Your task to perform on an android device: Is it going to rain today? Image 0: 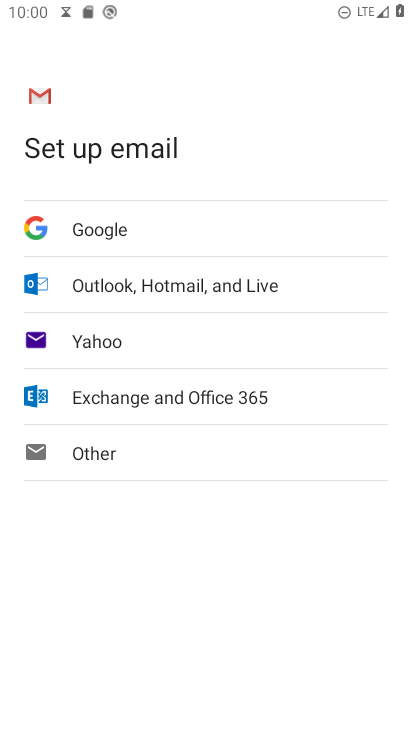
Step 0: press home button
Your task to perform on an android device: Is it going to rain today? Image 1: 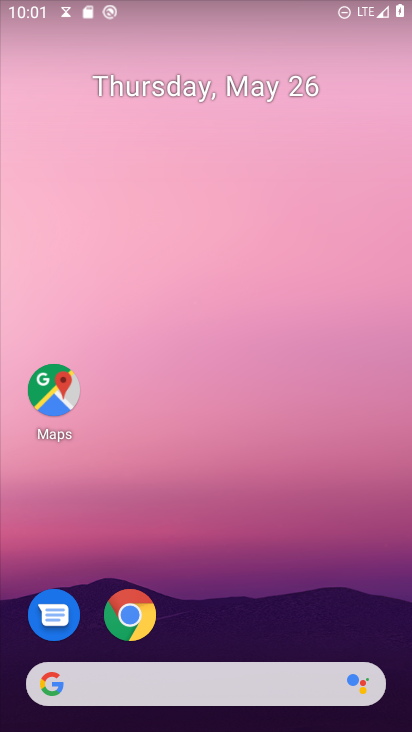
Step 1: click (133, 608)
Your task to perform on an android device: Is it going to rain today? Image 2: 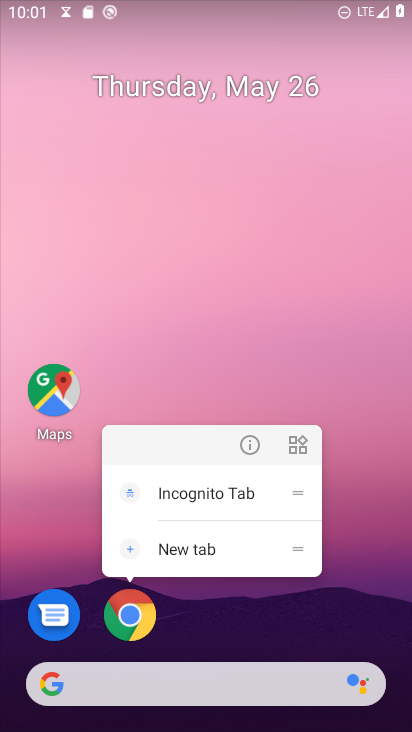
Step 2: click (134, 616)
Your task to perform on an android device: Is it going to rain today? Image 3: 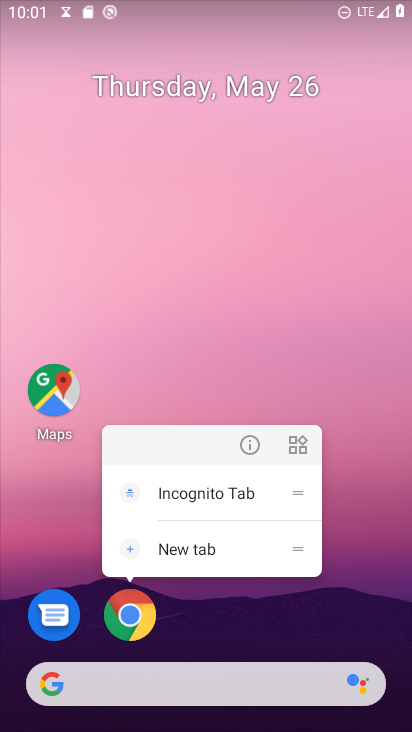
Step 3: click (133, 616)
Your task to perform on an android device: Is it going to rain today? Image 4: 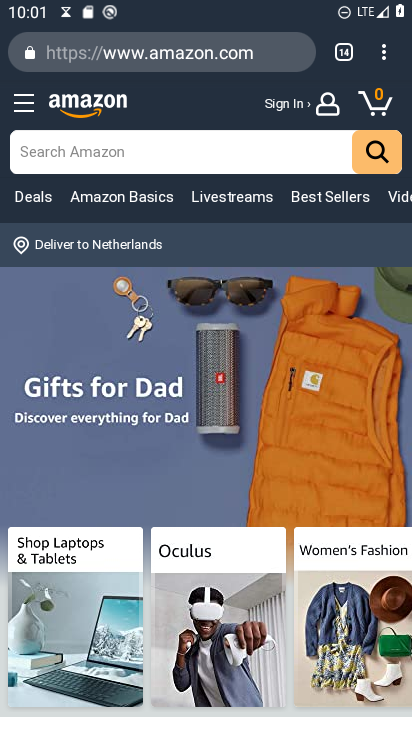
Step 4: click (378, 44)
Your task to perform on an android device: Is it going to rain today? Image 5: 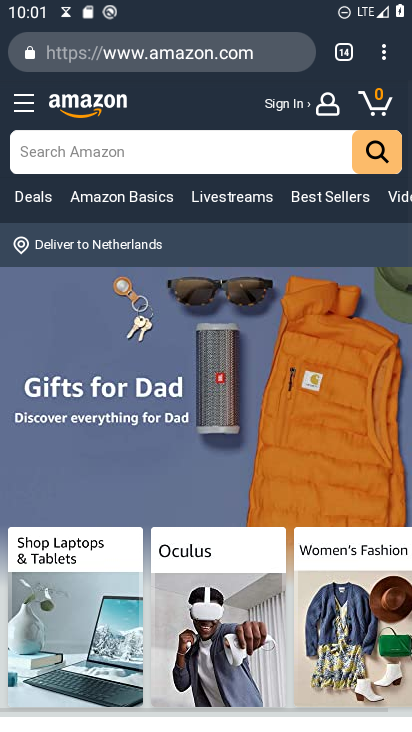
Step 5: click (381, 49)
Your task to perform on an android device: Is it going to rain today? Image 6: 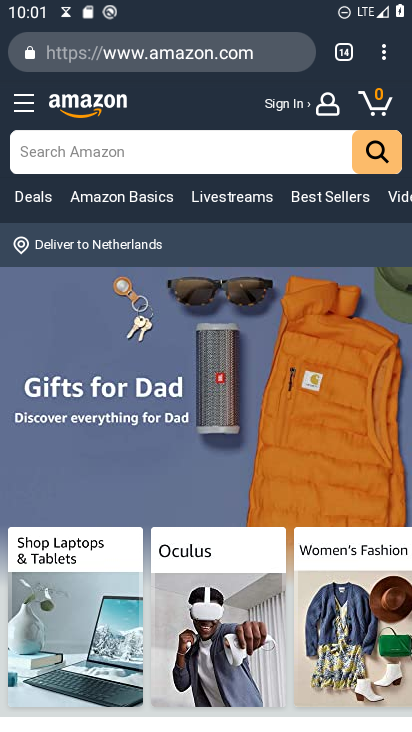
Step 6: click (382, 58)
Your task to perform on an android device: Is it going to rain today? Image 7: 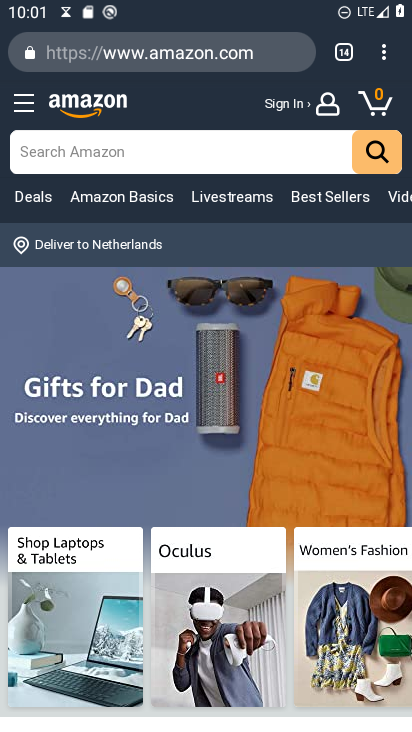
Step 7: click (386, 50)
Your task to perform on an android device: Is it going to rain today? Image 8: 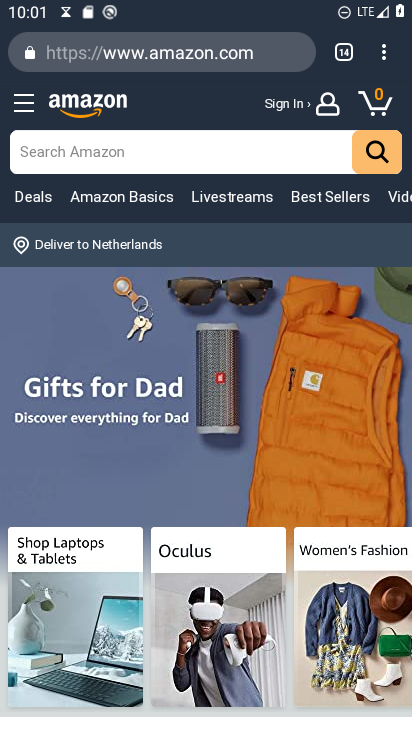
Step 8: click (376, 50)
Your task to perform on an android device: Is it going to rain today? Image 9: 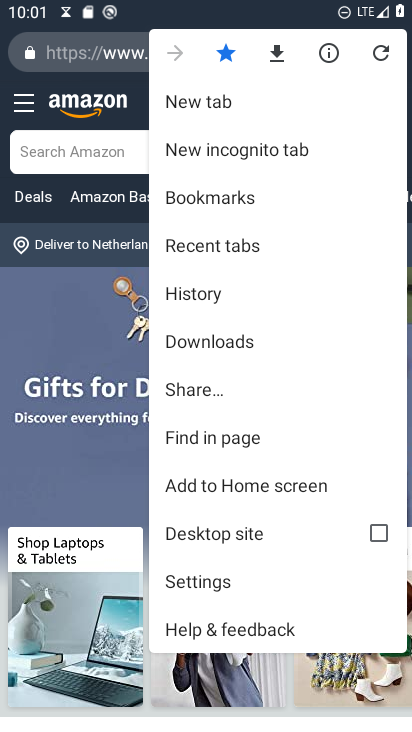
Step 9: click (191, 104)
Your task to perform on an android device: Is it going to rain today? Image 10: 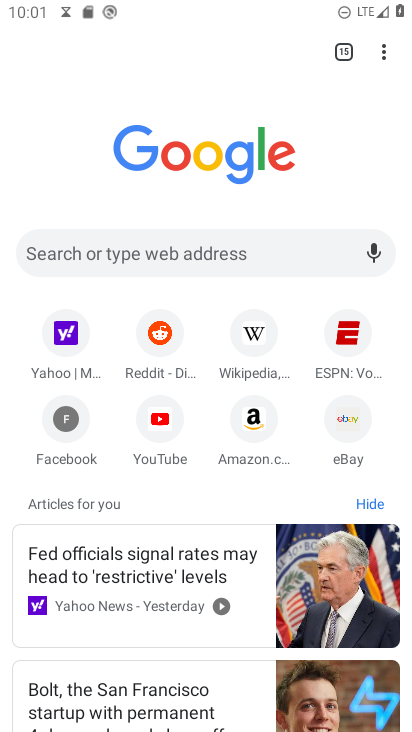
Step 10: click (103, 220)
Your task to perform on an android device: Is it going to rain today? Image 11: 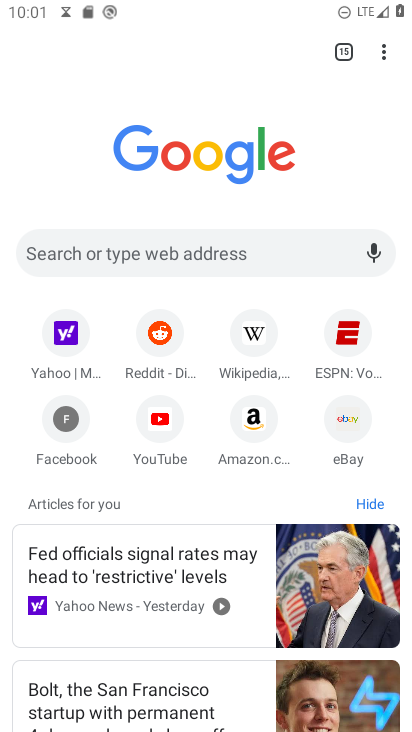
Step 11: click (101, 256)
Your task to perform on an android device: Is it going to rain today? Image 12: 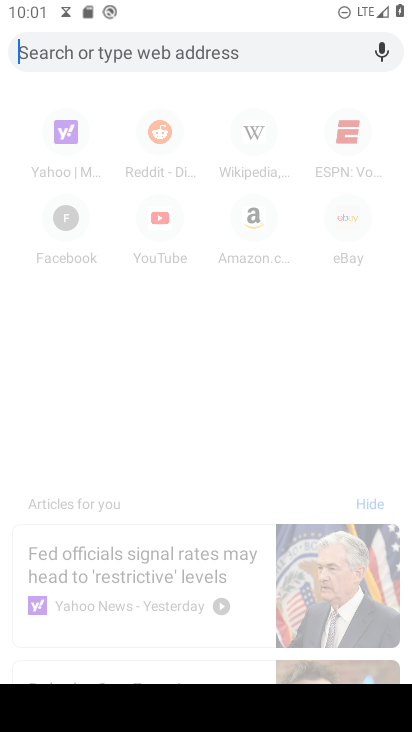
Step 12: type "Is it going to rain today?"
Your task to perform on an android device: Is it going to rain today? Image 13: 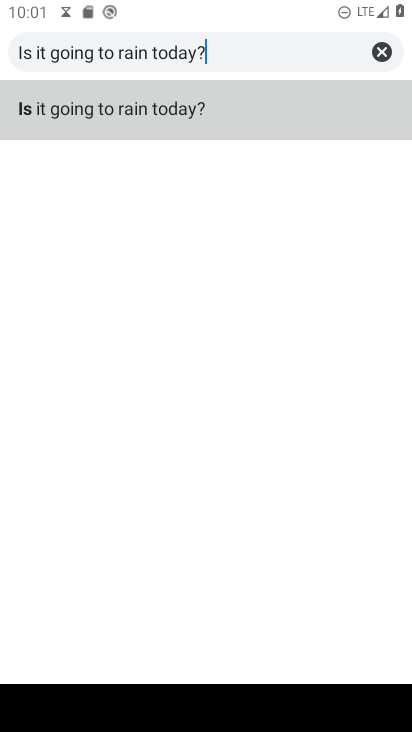
Step 13: click (172, 98)
Your task to perform on an android device: Is it going to rain today? Image 14: 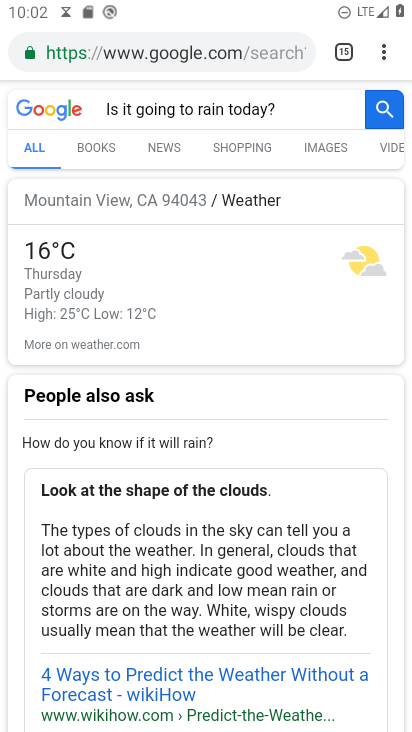
Step 14: task complete